Your task to perform on an android device: Search for sushi restaurants on Maps Image 0: 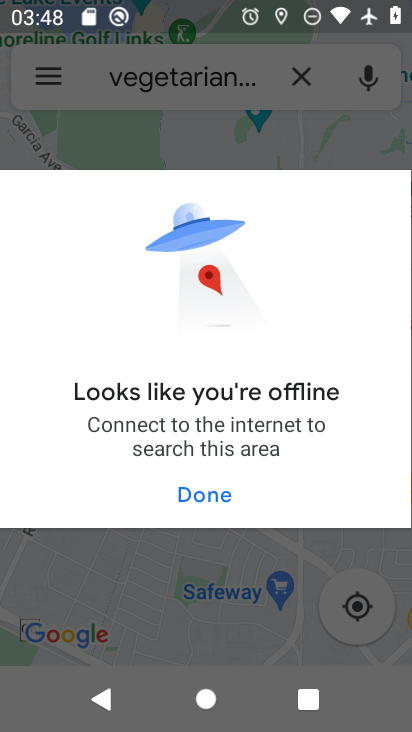
Step 0: task impossible